Your task to perform on an android device: Go to CNN.com Image 0: 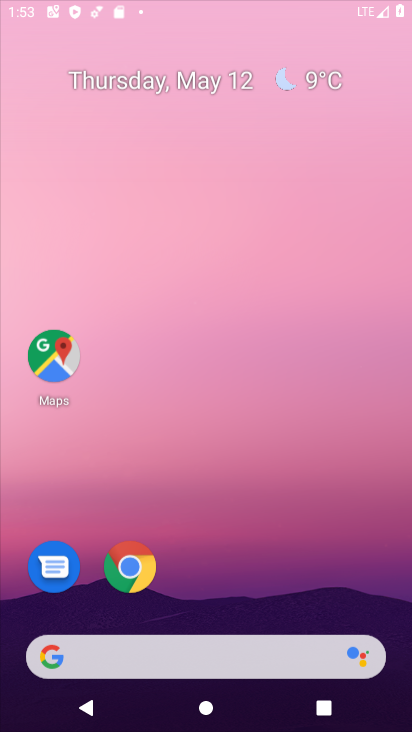
Step 0: drag from (250, 581) to (329, 299)
Your task to perform on an android device: Go to CNN.com Image 1: 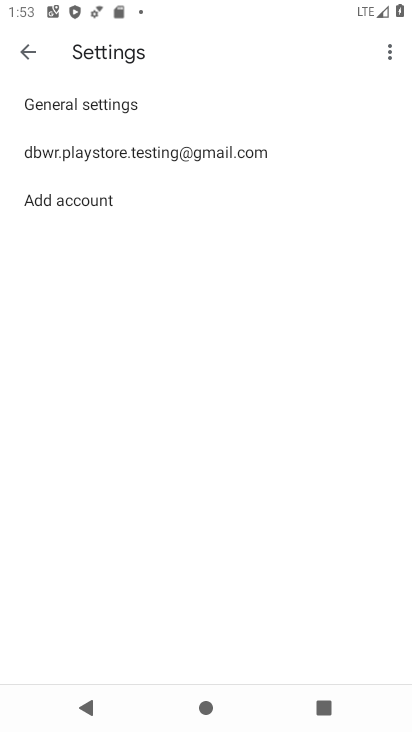
Step 1: press home button
Your task to perform on an android device: Go to CNN.com Image 2: 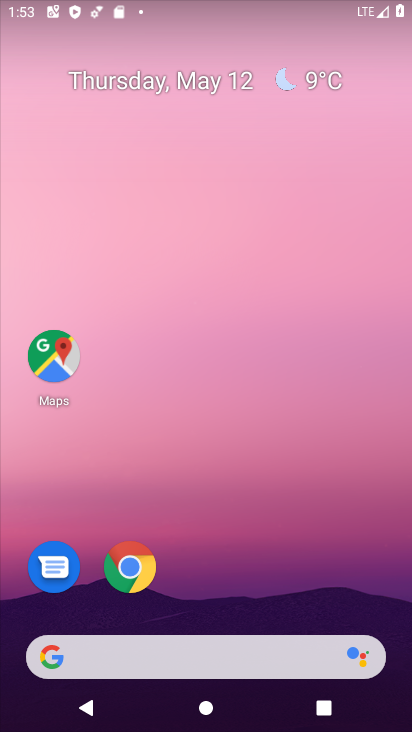
Step 2: drag from (205, 596) to (256, 223)
Your task to perform on an android device: Go to CNN.com Image 3: 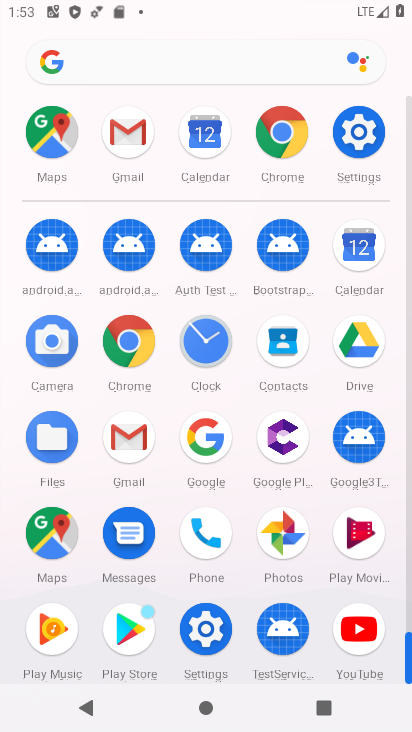
Step 3: click (281, 174)
Your task to perform on an android device: Go to CNN.com Image 4: 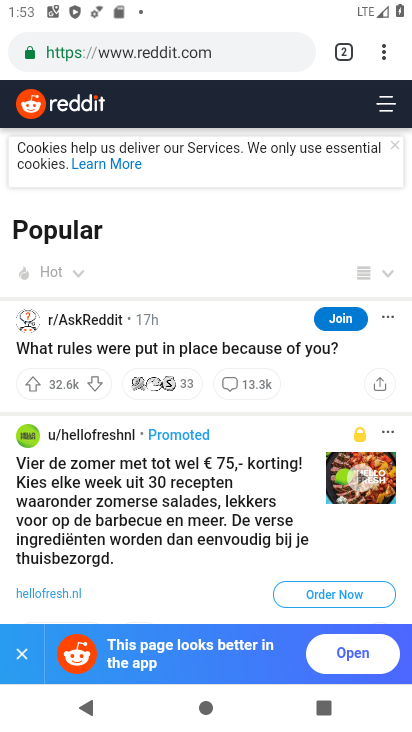
Step 4: press back button
Your task to perform on an android device: Go to CNN.com Image 5: 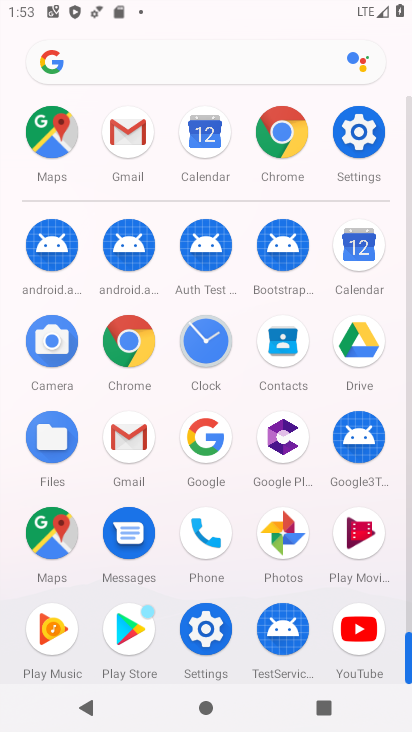
Step 5: click (290, 176)
Your task to perform on an android device: Go to CNN.com Image 6: 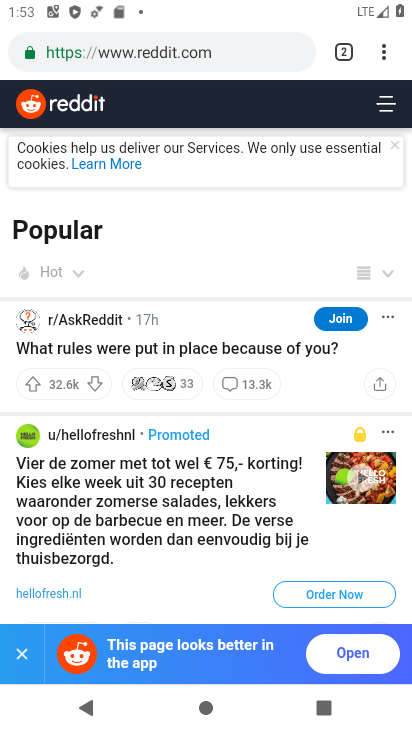
Step 6: click (169, 60)
Your task to perform on an android device: Go to CNN.com Image 7: 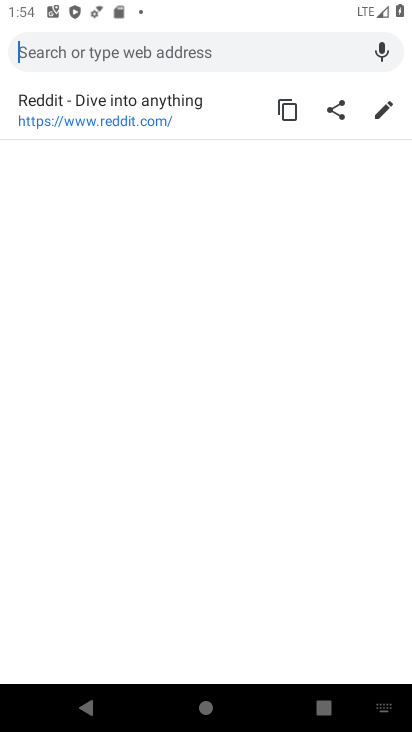
Step 7: type "www.cnn.com"
Your task to perform on an android device: Go to CNN.com Image 8: 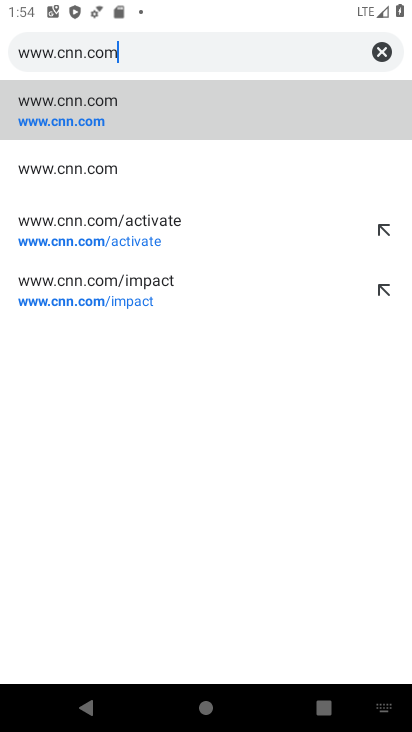
Step 8: click (56, 109)
Your task to perform on an android device: Go to CNN.com Image 9: 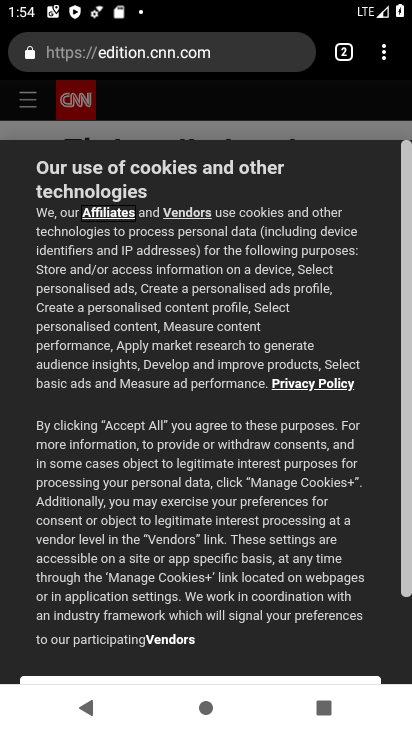
Step 9: task complete